Your task to perform on an android device: turn off wifi Image 0: 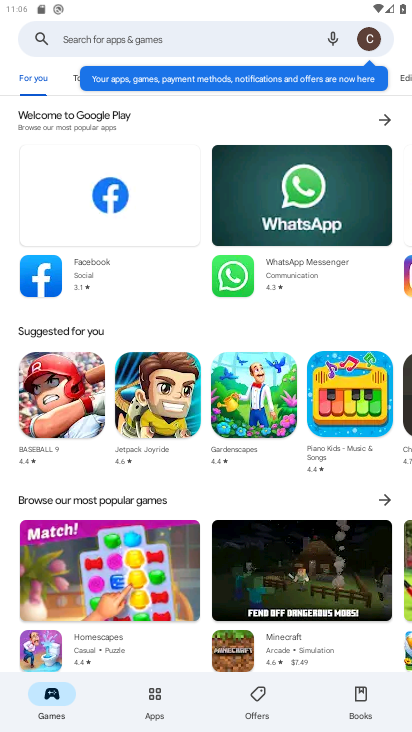
Step 0: press home button
Your task to perform on an android device: turn off wifi Image 1: 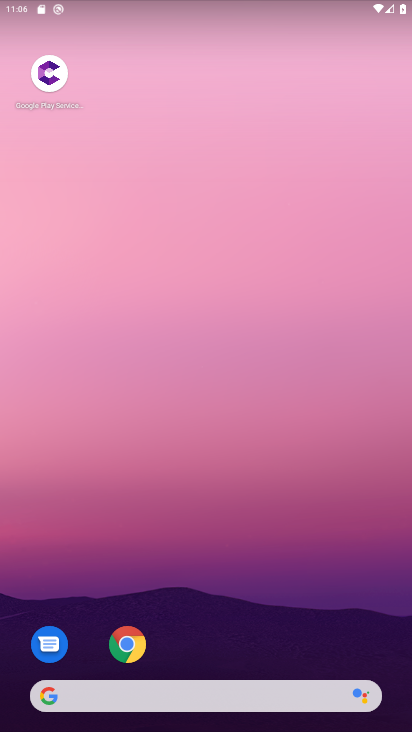
Step 1: drag from (16, 707) to (297, 247)
Your task to perform on an android device: turn off wifi Image 2: 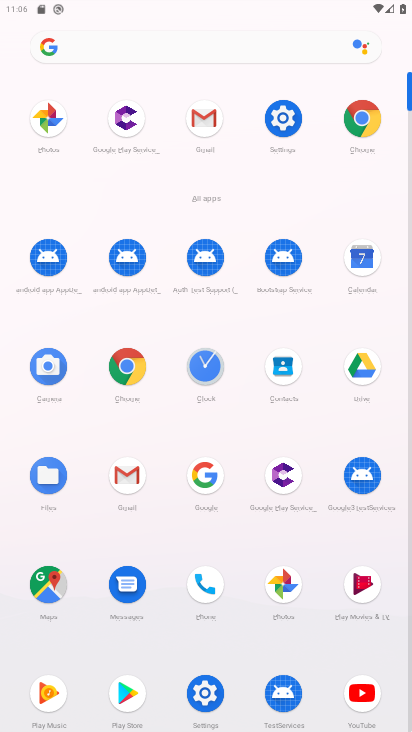
Step 2: click (199, 688)
Your task to perform on an android device: turn off wifi Image 3: 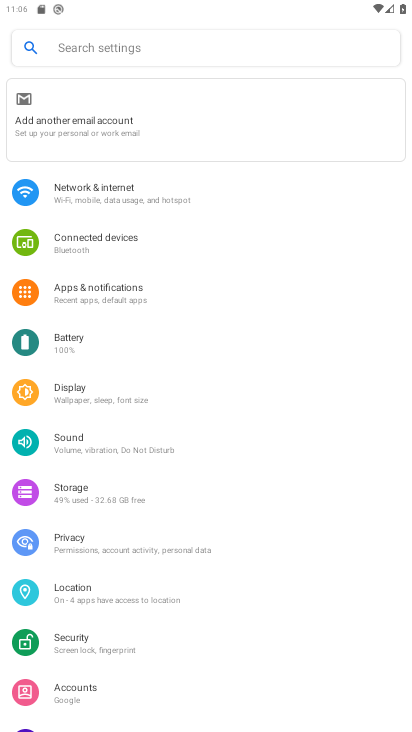
Step 3: click (111, 196)
Your task to perform on an android device: turn off wifi Image 4: 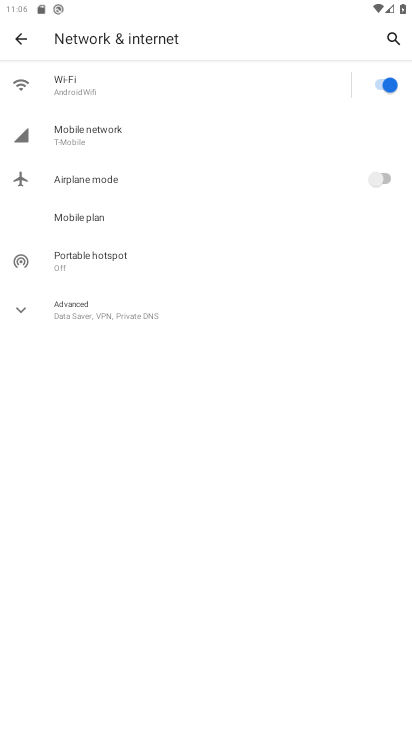
Step 4: click (392, 86)
Your task to perform on an android device: turn off wifi Image 5: 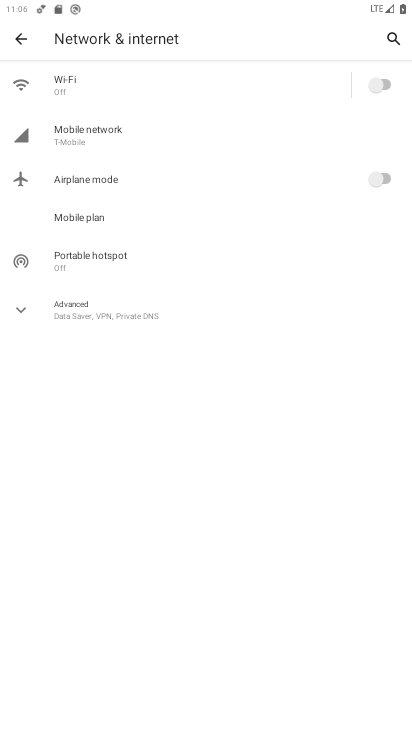
Step 5: task complete